Your task to perform on an android device: change the clock display to show seconds Image 0: 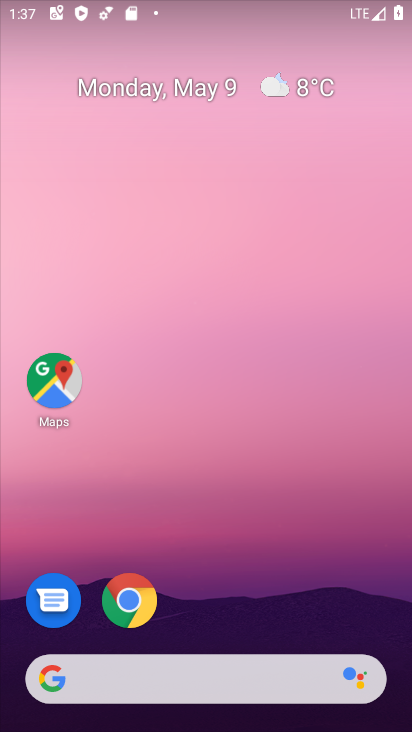
Step 0: drag from (209, 632) to (223, 142)
Your task to perform on an android device: change the clock display to show seconds Image 1: 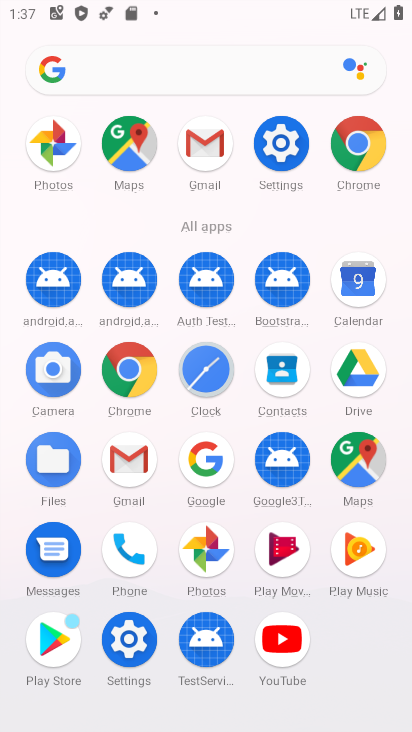
Step 1: click (203, 364)
Your task to perform on an android device: change the clock display to show seconds Image 2: 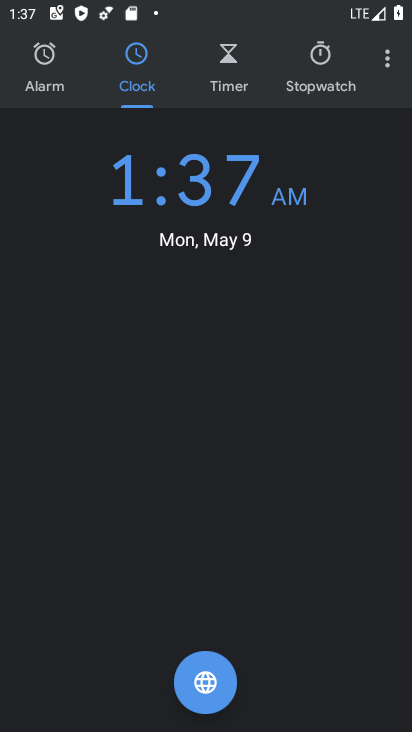
Step 2: click (372, 60)
Your task to perform on an android device: change the clock display to show seconds Image 3: 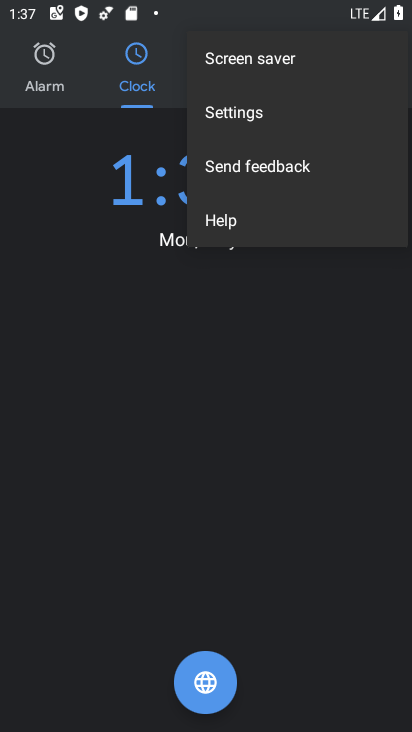
Step 3: click (272, 109)
Your task to perform on an android device: change the clock display to show seconds Image 4: 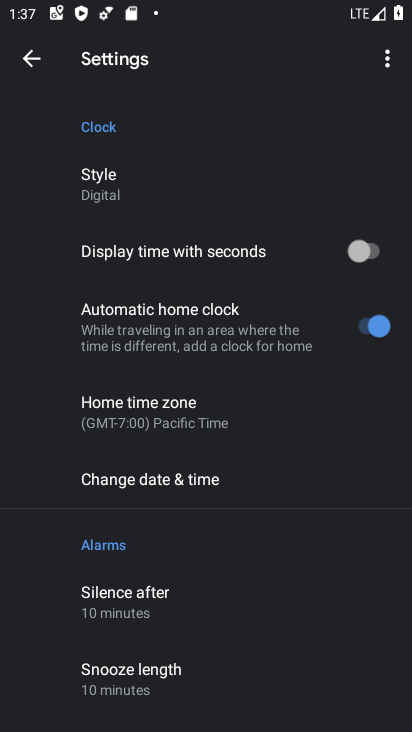
Step 4: click (353, 252)
Your task to perform on an android device: change the clock display to show seconds Image 5: 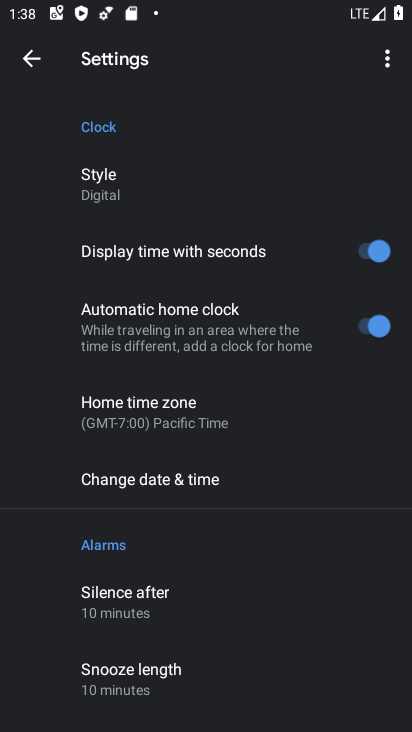
Step 5: task complete